Your task to perform on an android device: Do I have any events tomorrow? Image 0: 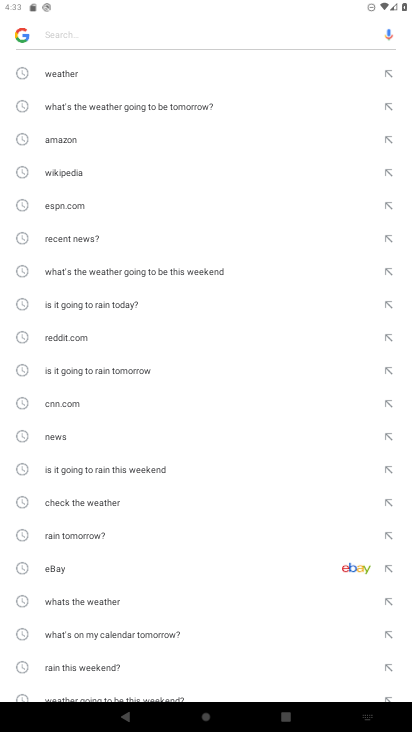
Step 0: press home button
Your task to perform on an android device: Do I have any events tomorrow? Image 1: 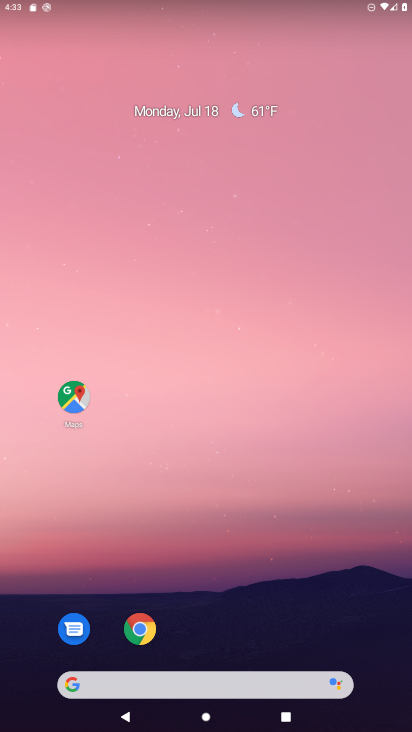
Step 1: drag from (235, 662) to (263, 118)
Your task to perform on an android device: Do I have any events tomorrow? Image 2: 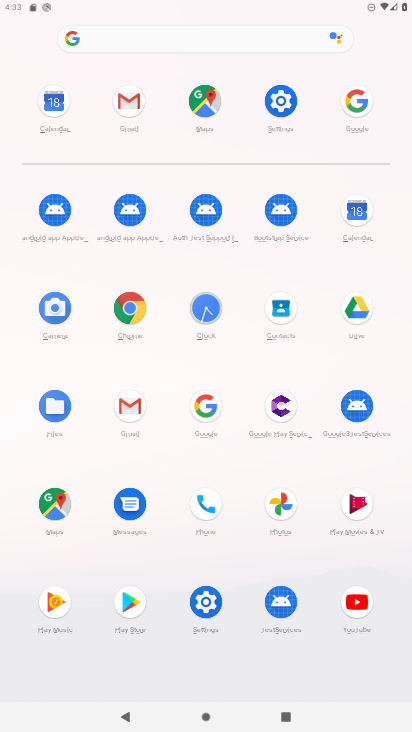
Step 2: click (358, 218)
Your task to perform on an android device: Do I have any events tomorrow? Image 3: 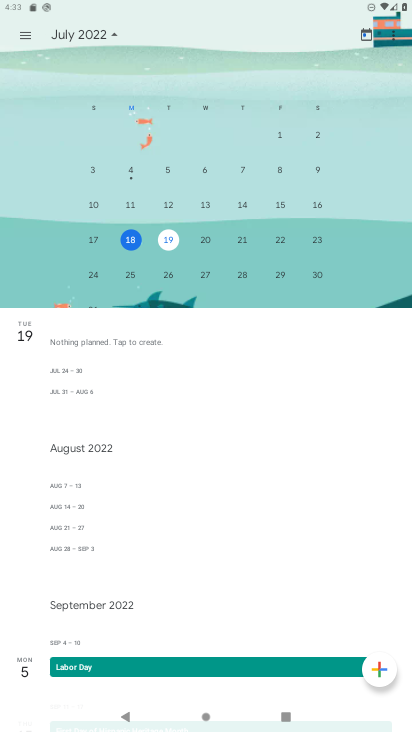
Step 3: click (174, 243)
Your task to perform on an android device: Do I have any events tomorrow? Image 4: 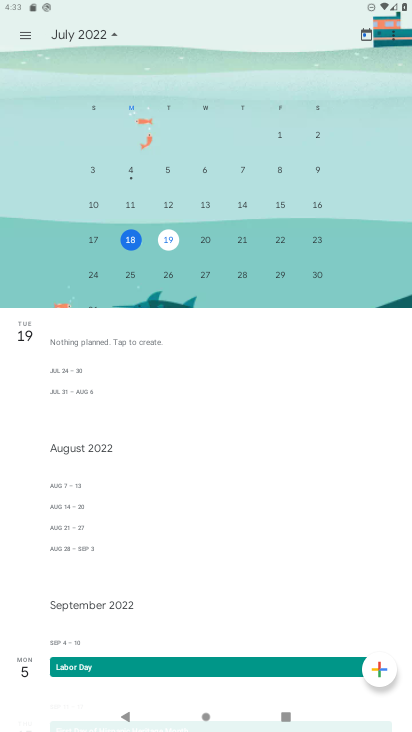
Step 4: task complete